Your task to perform on an android device: change the clock display to analog Image 0: 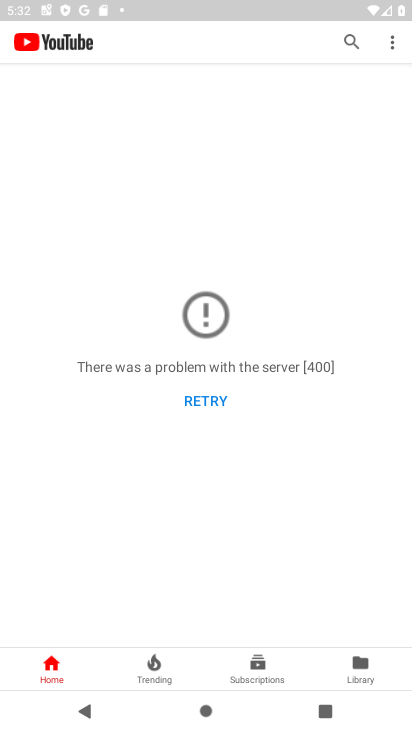
Step 0: press home button
Your task to perform on an android device: change the clock display to analog Image 1: 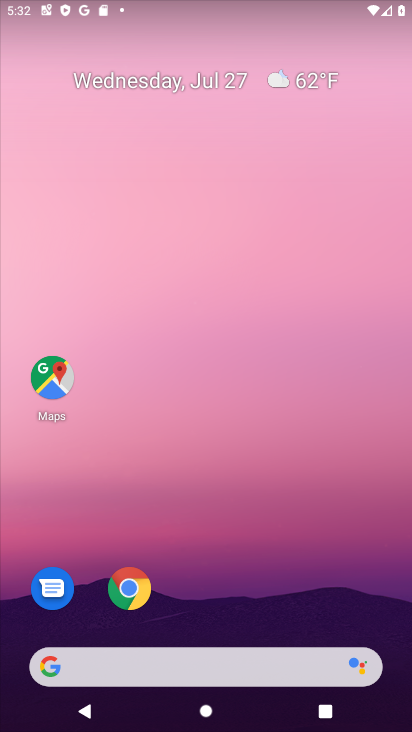
Step 1: drag from (213, 535) to (206, 34)
Your task to perform on an android device: change the clock display to analog Image 2: 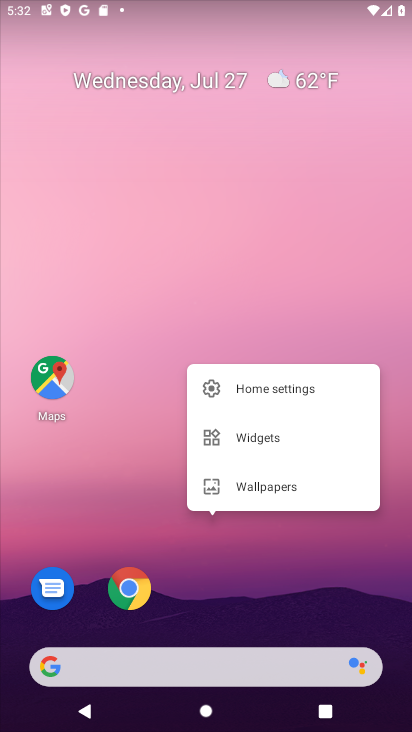
Step 2: drag from (216, 551) to (3, 474)
Your task to perform on an android device: change the clock display to analog Image 3: 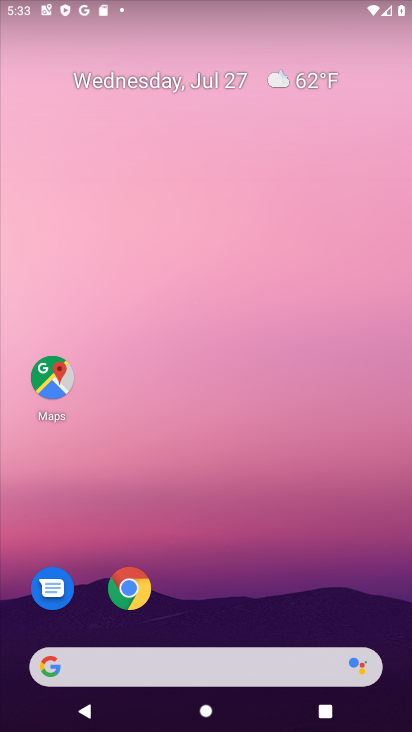
Step 3: drag from (205, 619) to (205, 217)
Your task to perform on an android device: change the clock display to analog Image 4: 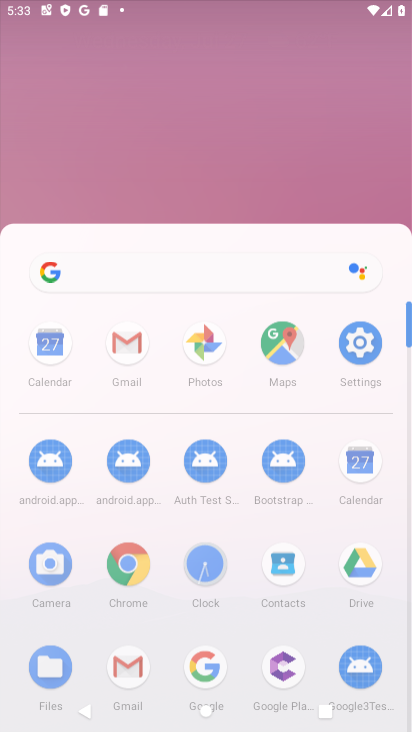
Step 4: drag from (173, 619) to (196, 61)
Your task to perform on an android device: change the clock display to analog Image 5: 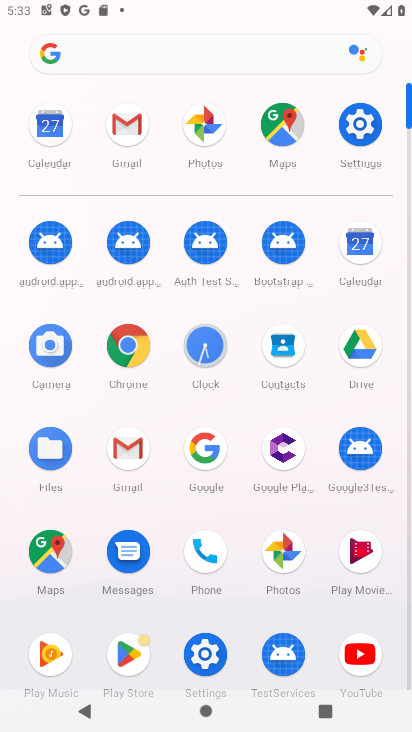
Step 5: click (205, 360)
Your task to perform on an android device: change the clock display to analog Image 6: 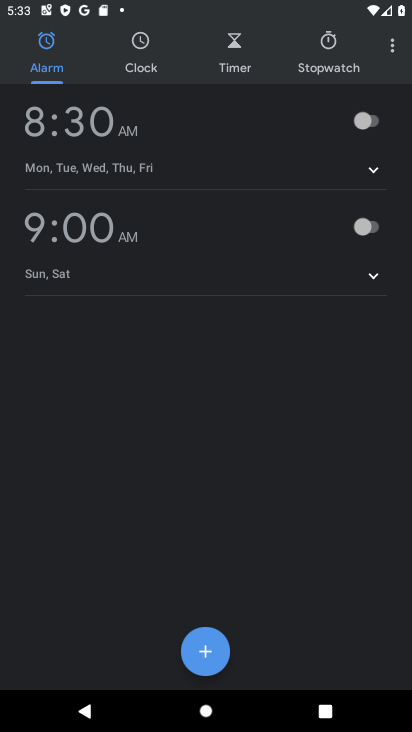
Step 6: click (391, 45)
Your task to perform on an android device: change the clock display to analog Image 7: 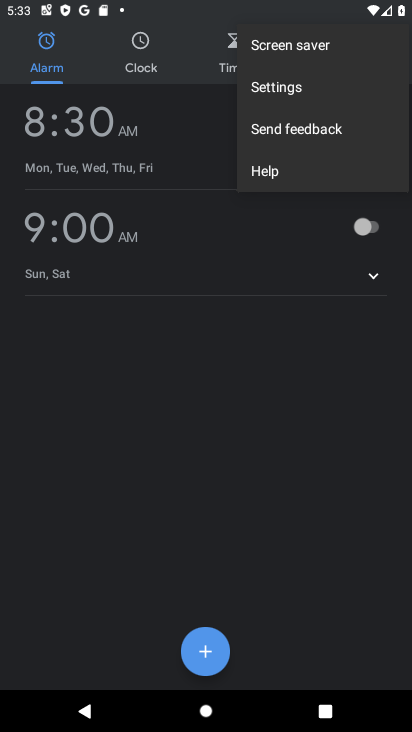
Step 7: click (277, 86)
Your task to perform on an android device: change the clock display to analog Image 8: 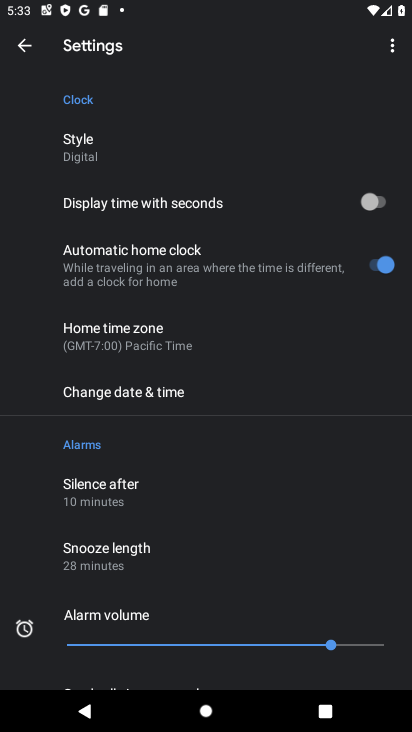
Step 8: click (90, 154)
Your task to perform on an android device: change the clock display to analog Image 9: 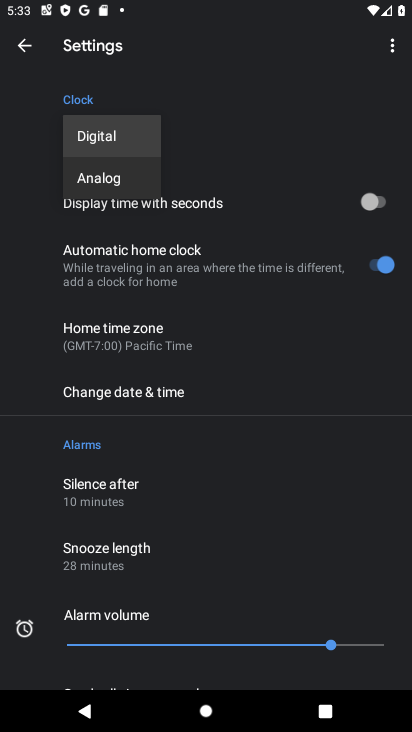
Step 9: click (98, 173)
Your task to perform on an android device: change the clock display to analog Image 10: 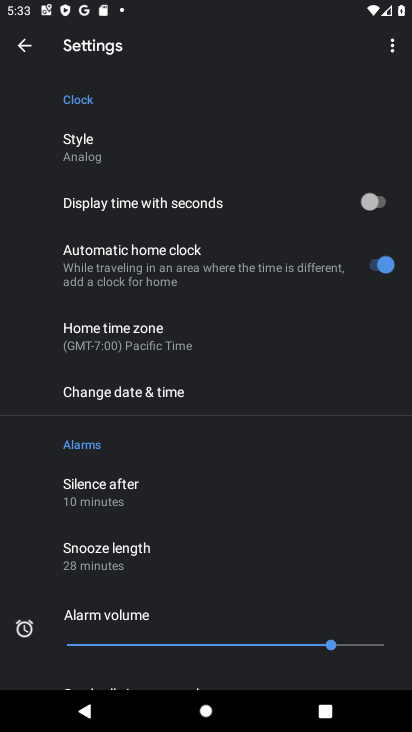
Step 10: task complete